Your task to perform on an android device: Show me popular games on the Play Store Image 0: 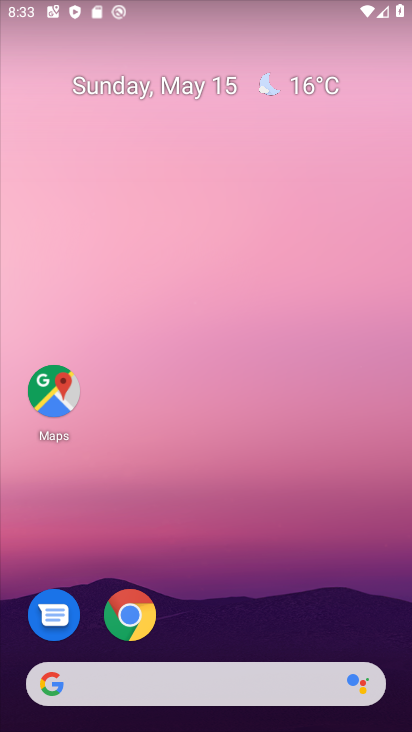
Step 0: drag from (277, 624) to (258, 188)
Your task to perform on an android device: Show me popular games on the Play Store Image 1: 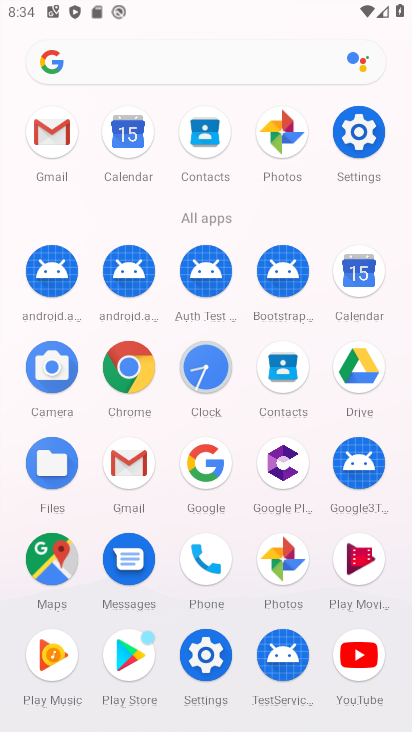
Step 1: click (120, 640)
Your task to perform on an android device: Show me popular games on the Play Store Image 2: 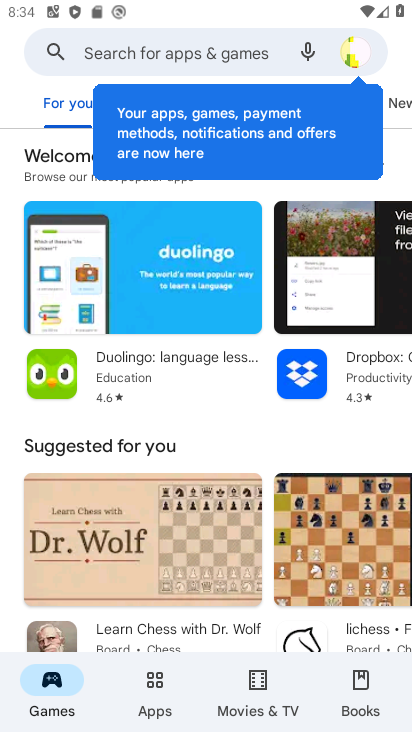
Step 2: click (129, 409)
Your task to perform on an android device: Show me popular games on the Play Store Image 3: 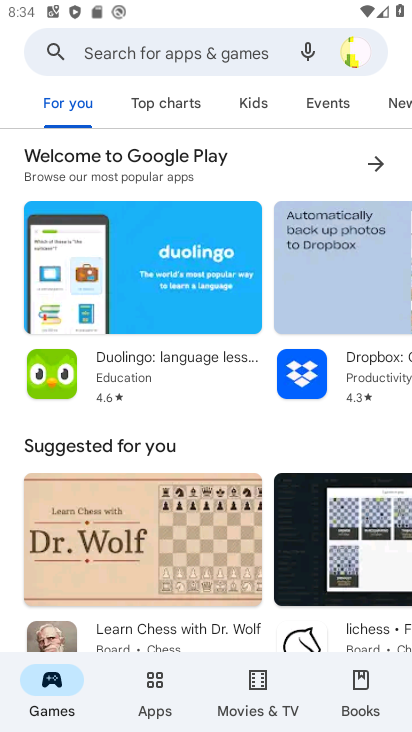
Step 3: click (167, 90)
Your task to perform on an android device: Show me popular games on the Play Store Image 4: 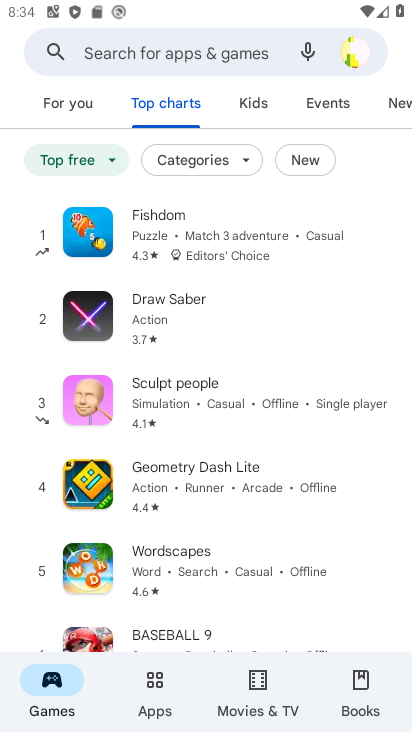
Step 4: task complete